Your task to perform on an android device: create a new album in the google photos Image 0: 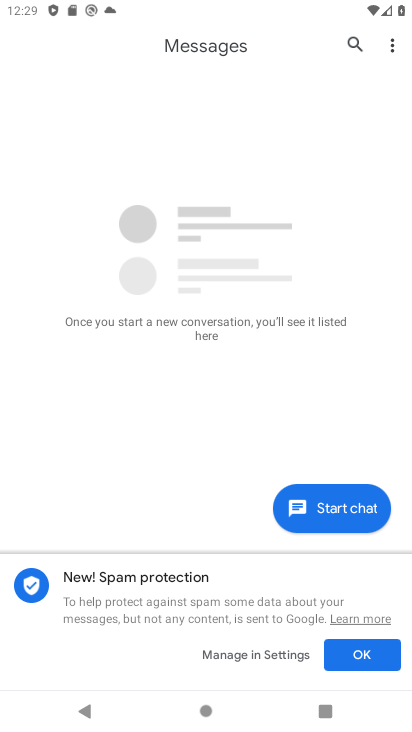
Step 0: press home button
Your task to perform on an android device: create a new album in the google photos Image 1: 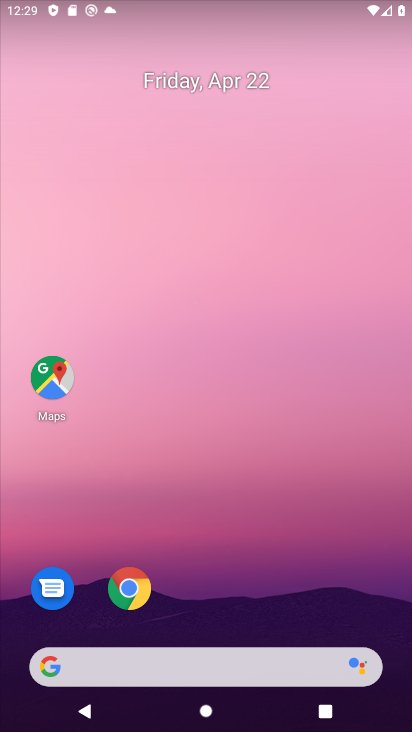
Step 1: drag from (267, 683) to (226, 167)
Your task to perform on an android device: create a new album in the google photos Image 2: 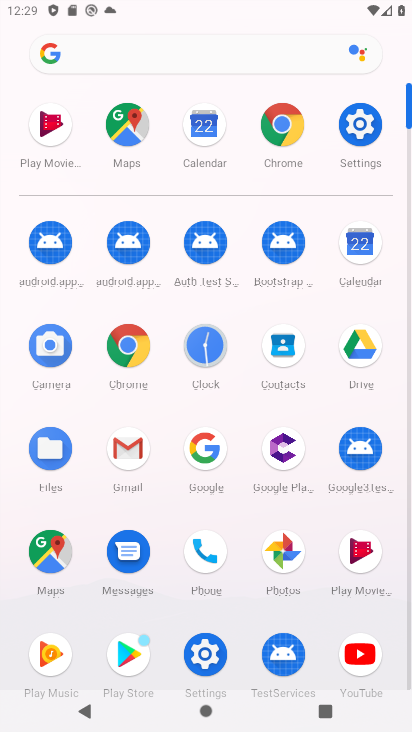
Step 2: click (282, 555)
Your task to perform on an android device: create a new album in the google photos Image 3: 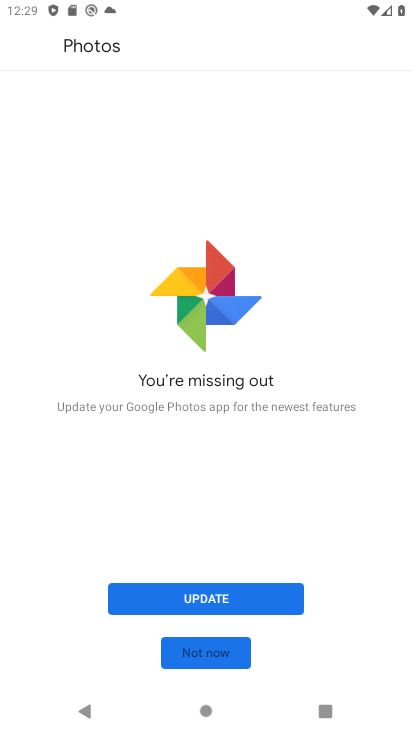
Step 3: click (228, 593)
Your task to perform on an android device: create a new album in the google photos Image 4: 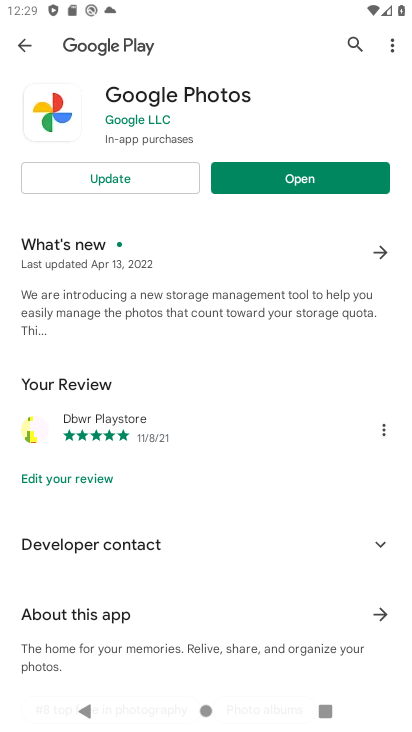
Step 4: click (280, 187)
Your task to perform on an android device: create a new album in the google photos Image 5: 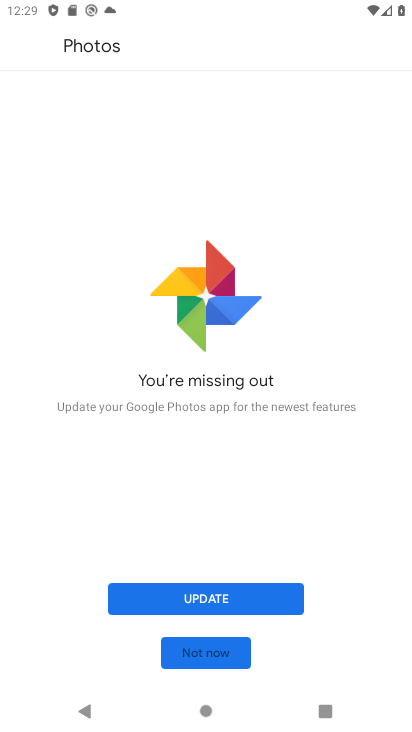
Step 5: click (221, 593)
Your task to perform on an android device: create a new album in the google photos Image 6: 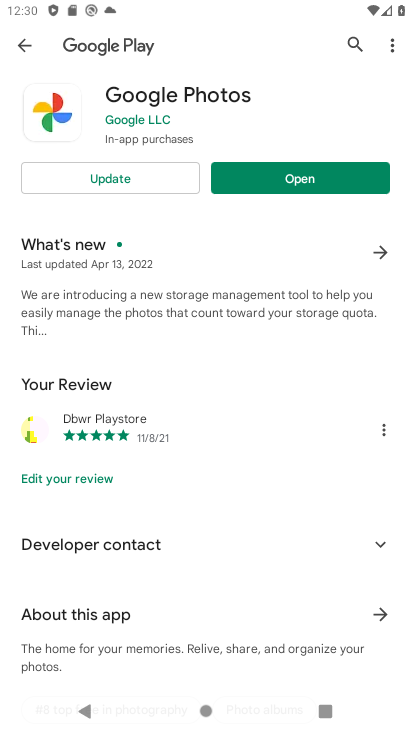
Step 6: click (109, 177)
Your task to perform on an android device: create a new album in the google photos Image 7: 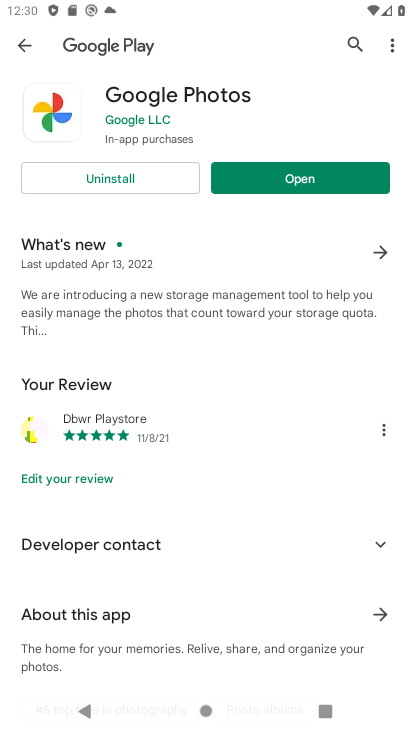
Step 7: click (309, 173)
Your task to perform on an android device: create a new album in the google photos Image 8: 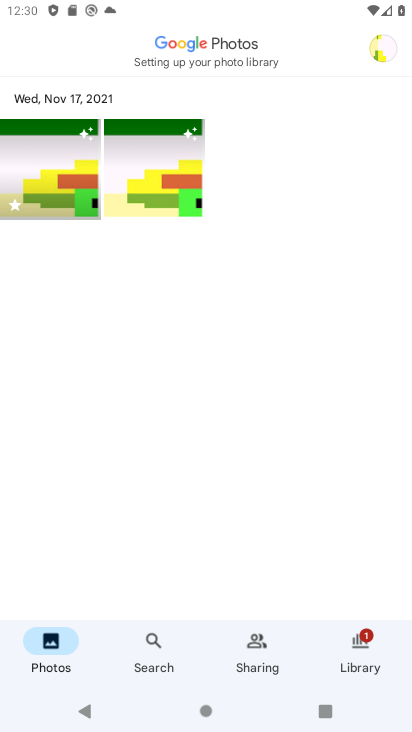
Step 8: click (161, 182)
Your task to perform on an android device: create a new album in the google photos Image 9: 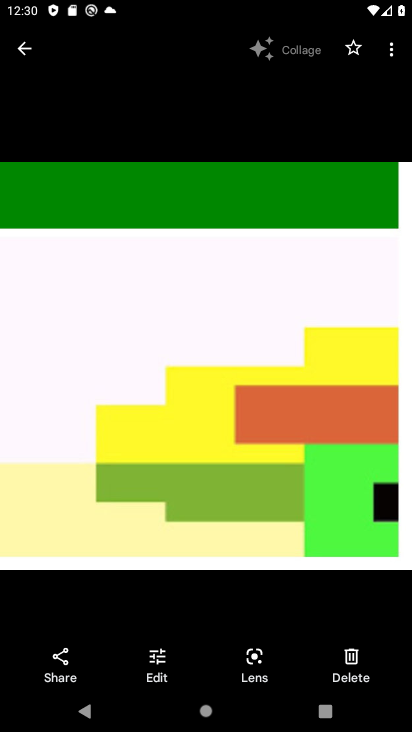
Step 9: click (391, 48)
Your task to perform on an android device: create a new album in the google photos Image 10: 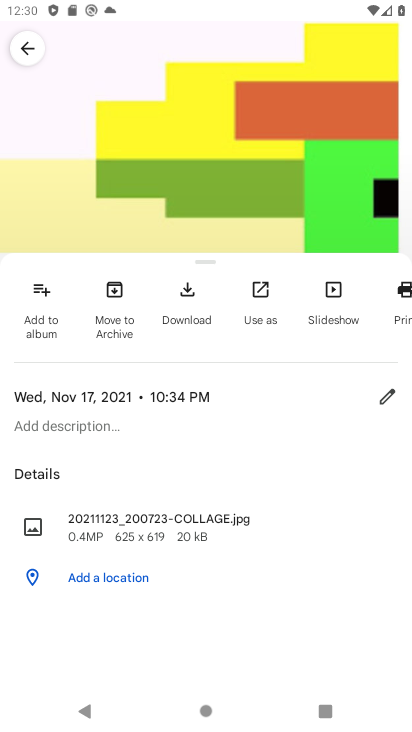
Step 10: click (41, 313)
Your task to perform on an android device: create a new album in the google photos Image 11: 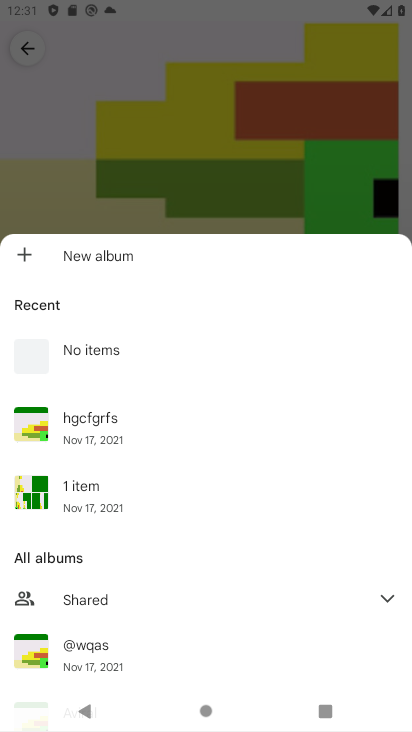
Step 11: click (77, 263)
Your task to perform on an android device: create a new album in the google photos Image 12: 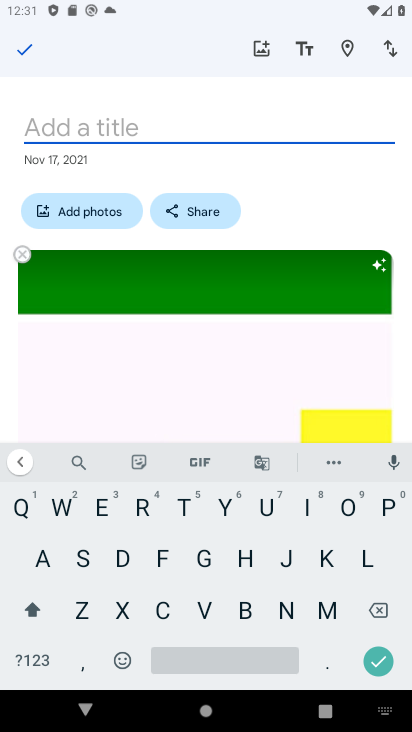
Step 12: click (130, 507)
Your task to perform on an android device: create a new album in the google photos Image 13: 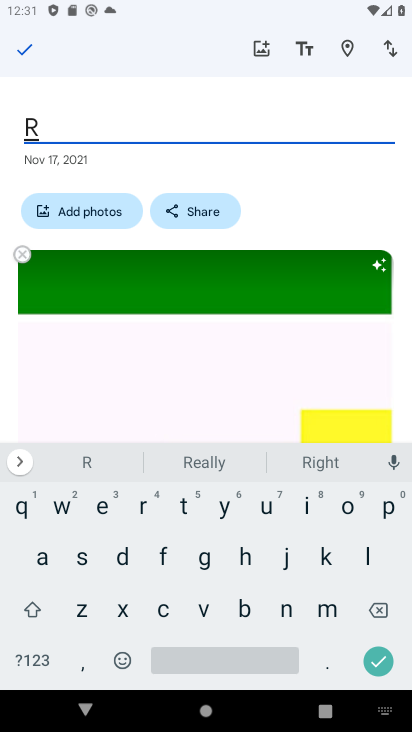
Step 13: click (307, 504)
Your task to perform on an android device: create a new album in the google photos Image 14: 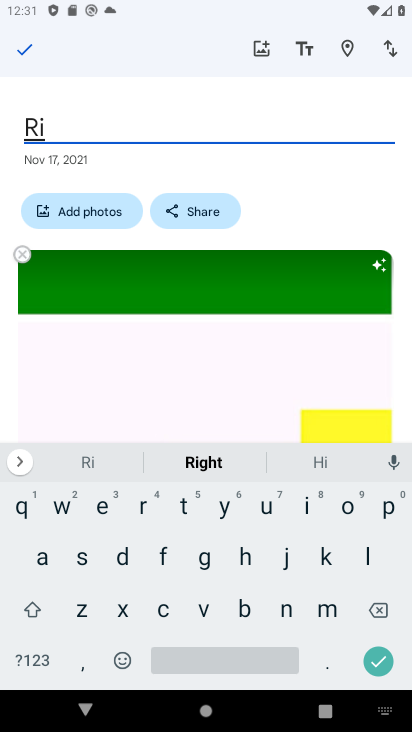
Step 14: click (384, 518)
Your task to perform on an android device: create a new album in the google photos Image 15: 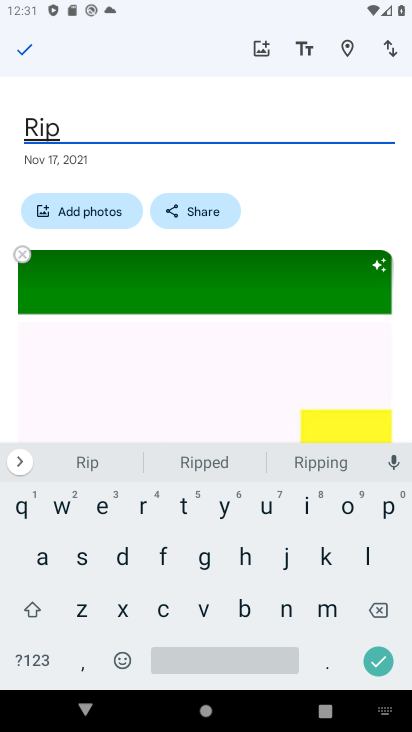
Step 15: click (24, 65)
Your task to perform on an android device: create a new album in the google photos Image 16: 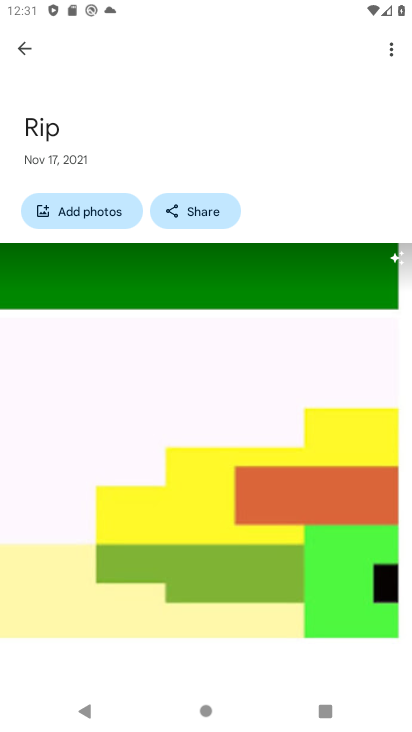
Step 16: task complete